Your task to perform on an android device: turn off notifications settings in the gmail app Image 0: 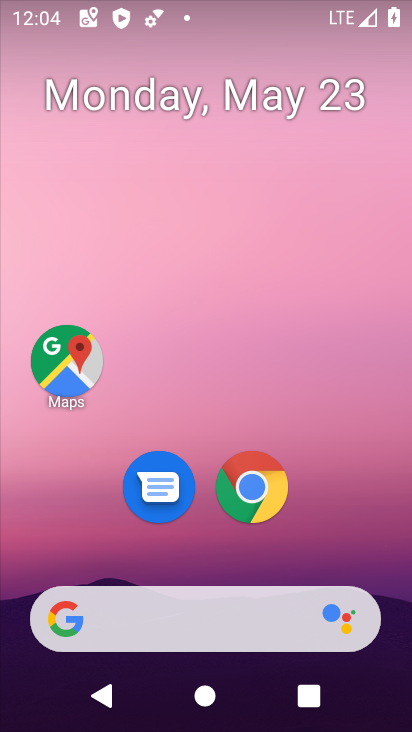
Step 0: drag from (218, 395) to (241, 42)
Your task to perform on an android device: turn off notifications settings in the gmail app Image 1: 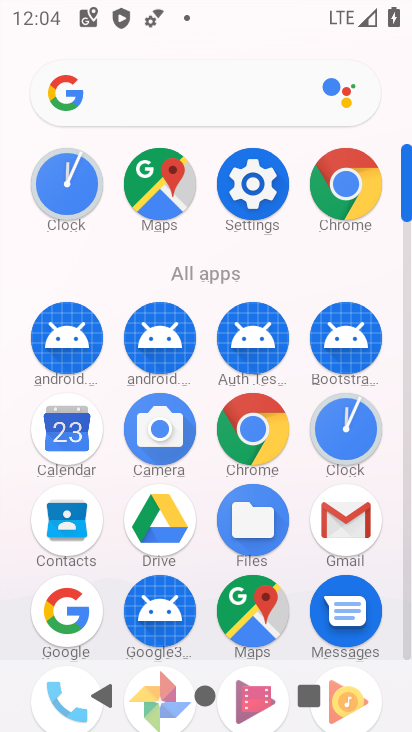
Step 1: click (334, 527)
Your task to perform on an android device: turn off notifications settings in the gmail app Image 2: 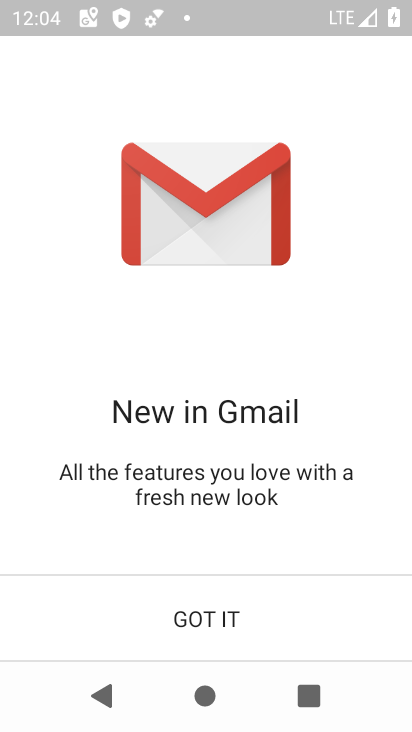
Step 2: click (303, 619)
Your task to perform on an android device: turn off notifications settings in the gmail app Image 3: 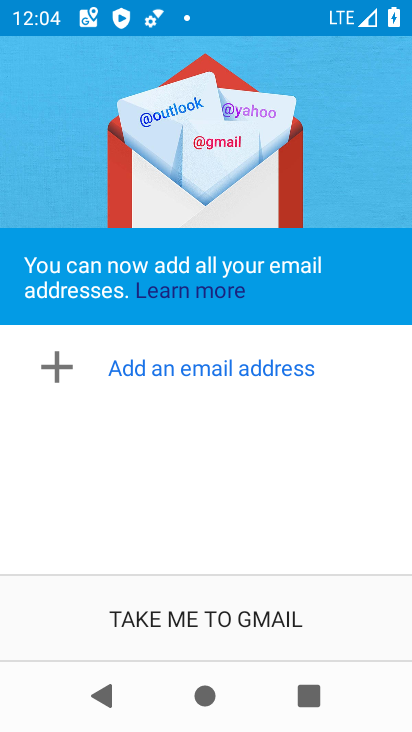
Step 3: click (303, 617)
Your task to perform on an android device: turn off notifications settings in the gmail app Image 4: 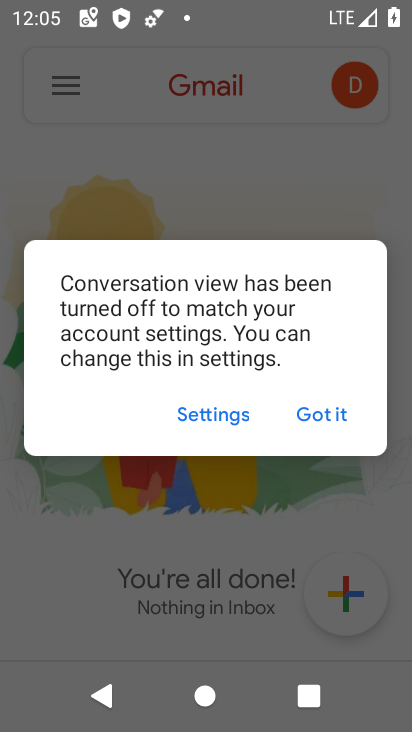
Step 4: click (314, 398)
Your task to perform on an android device: turn off notifications settings in the gmail app Image 5: 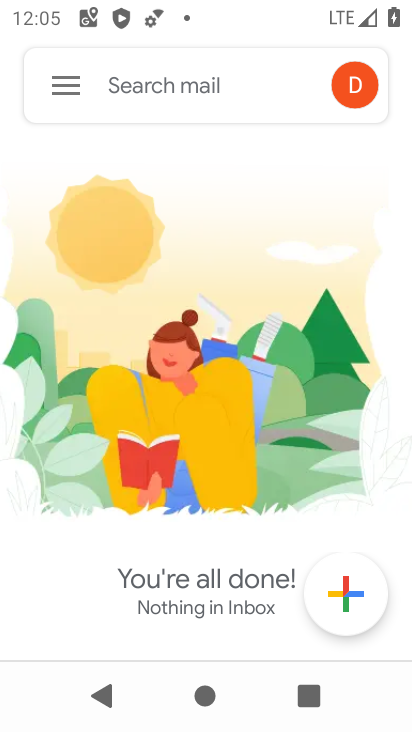
Step 5: click (56, 59)
Your task to perform on an android device: turn off notifications settings in the gmail app Image 6: 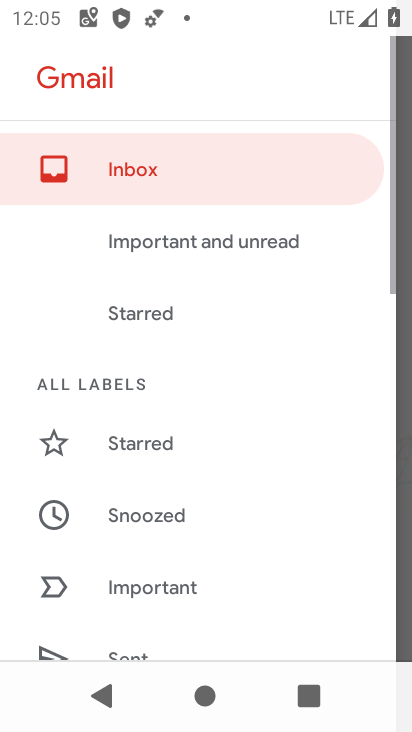
Step 6: drag from (203, 616) to (291, 29)
Your task to perform on an android device: turn off notifications settings in the gmail app Image 7: 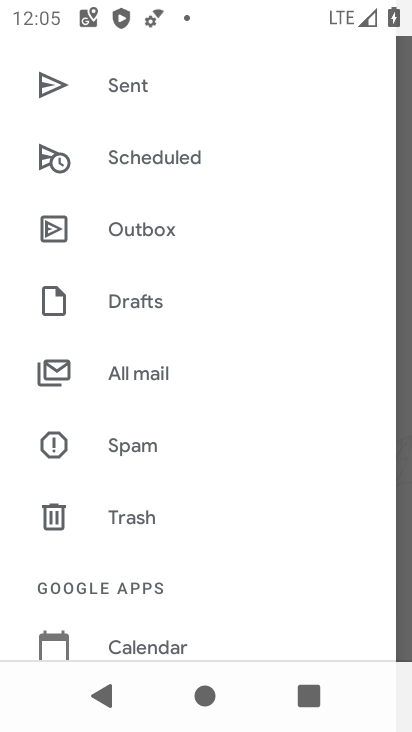
Step 7: drag from (252, 503) to (278, 162)
Your task to perform on an android device: turn off notifications settings in the gmail app Image 8: 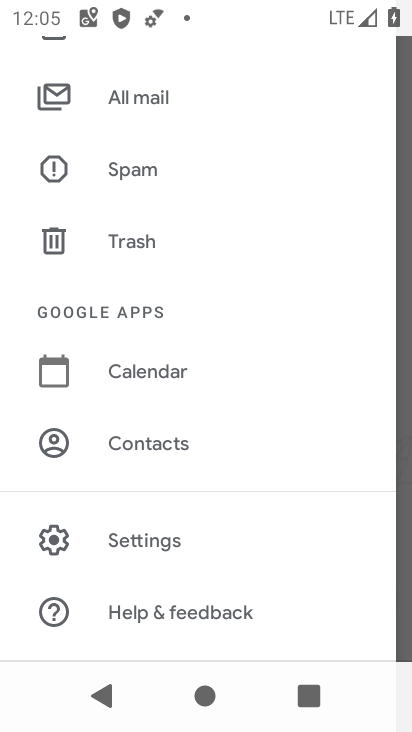
Step 8: click (184, 529)
Your task to perform on an android device: turn off notifications settings in the gmail app Image 9: 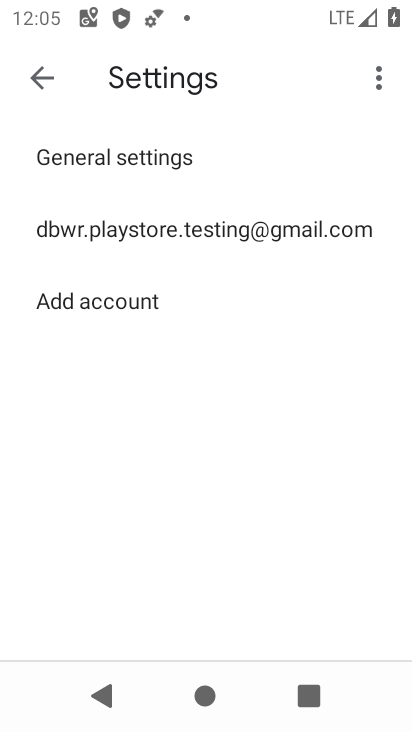
Step 9: click (276, 225)
Your task to perform on an android device: turn off notifications settings in the gmail app Image 10: 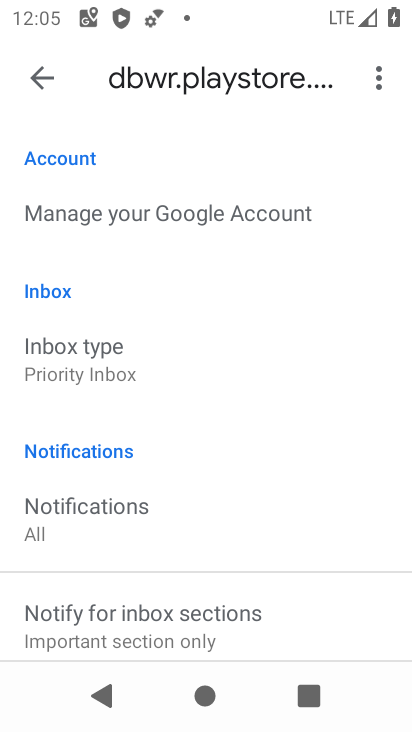
Step 10: drag from (218, 499) to (259, 107)
Your task to perform on an android device: turn off notifications settings in the gmail app Image 11: 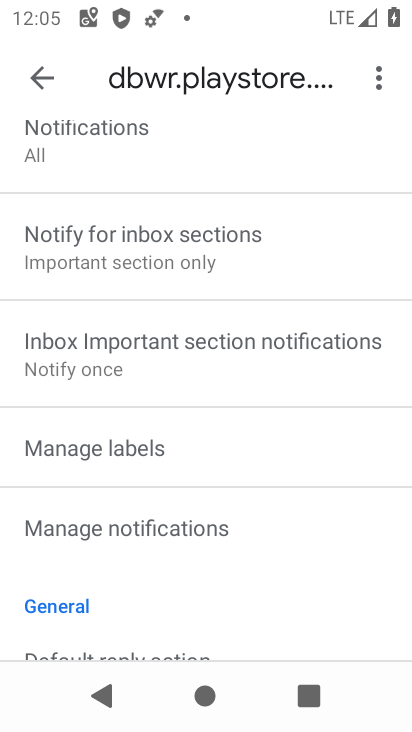
Step 11: click (207, 514)
Your task to perform on an android device: turn off notifications settings in the gmail app Image 12: 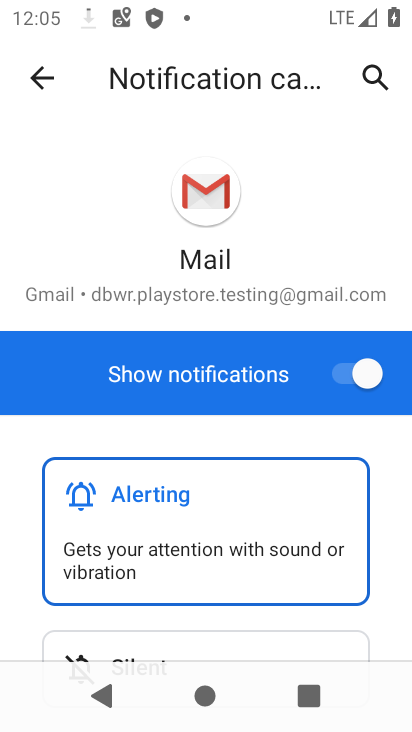
Step 12: click (342, 370)
Your task to perform on an android device: turn off notifications settings in the gmail app Image 13: 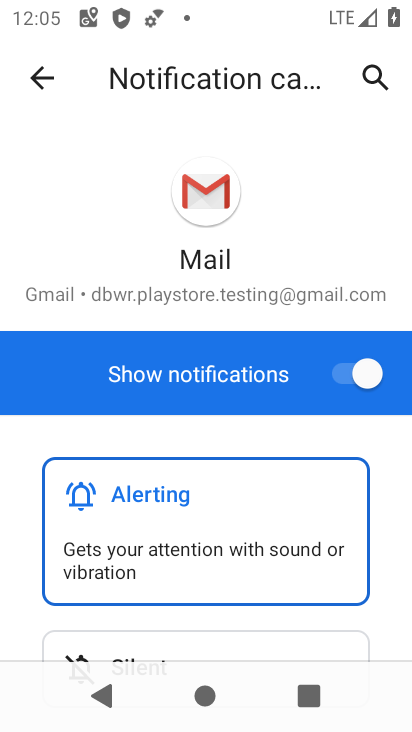
Step 13: click (348, 371)
Your task to perform on an android device: turn off notifications settings in the gmail app Image 14: 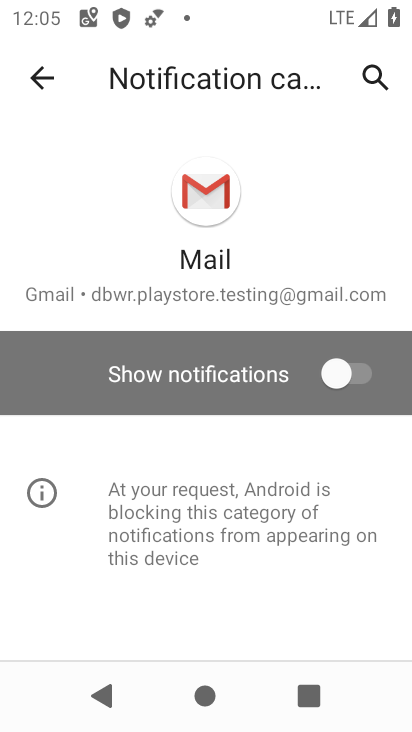
Step 14: task complete